Your task to perform on an android device: Clear the shopping cart on walmart.com. Search for dell alienware on walmart.com, select the first entry, and add it to the cart. Image 0: 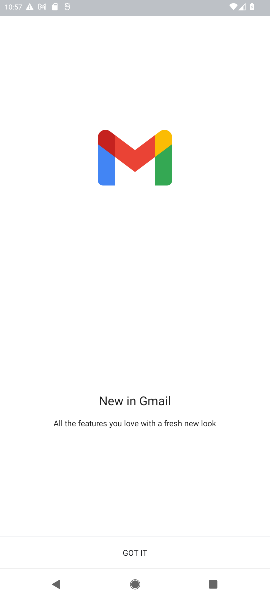
Step 0: press home button
Your task to perform on an android device: Clear the shopping cart on walmart.com. Search for dell alienware on walmart.com, select the first entry, and add it to the cart. Image 1: 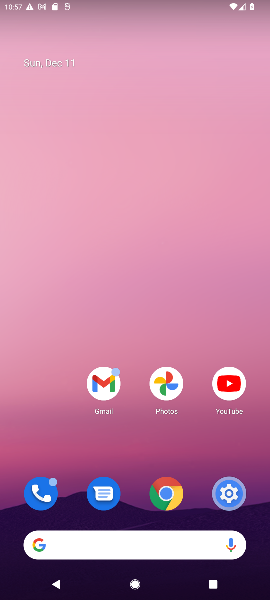
Step 1: click (147, 544)
Your task to perform on an android device: Clear the shopping cart on walmart.com. Search for dell alienware on walmart.com, select the first entry, and add it to the cart. Image 2: 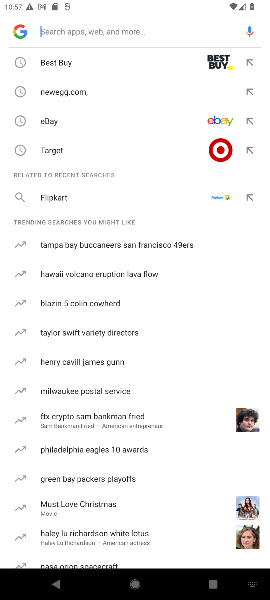
Step 2: type "walmart"
Your task to perform on an android device: Clear the shopping cart on walmart.com. Search for dell alienware on walmart.com, select the first entry, and add it to the cart. Image 3: 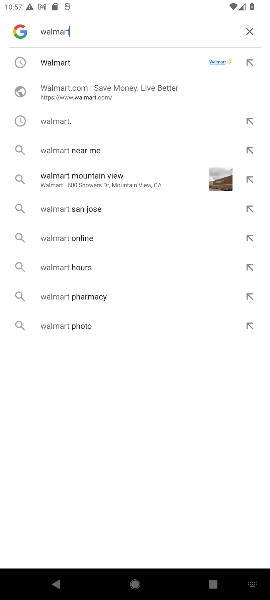
Step 3: click (104, 68)
Your task to perform on an android device: Clear the shopping cart on walmart.com. Search for dell alienware on walmart.com, select the first entry, and add it to the cart. Image 4: 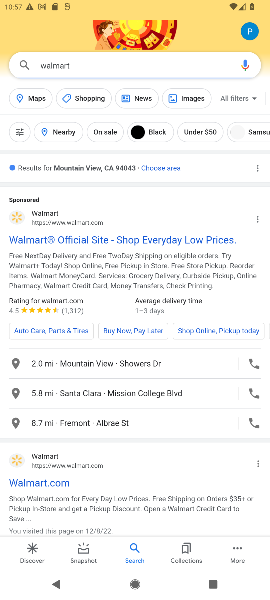
Step 4: click (49, 236)
Your task to perform on an android device: Clear the shopping cart on walmart.com. Search for dell alienware on walmart.com, select the first entry, and add it to the cart. Image 5: 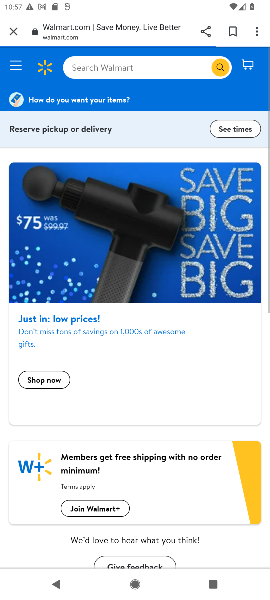
Step 5: click (159, 71)
Your task to perform on an android device: Clear the shopping cart on walmart.com. Search for dell alienware on walmart.com, select the first entry, and add it to the cart. Image 6: 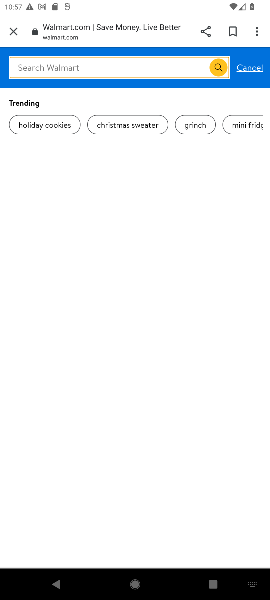
Step 6: type "dell alienware"
Your task to perform on an android device: Clear the shopping cart on walmart.com. Search for dell alienware on walmart.com, select the first entry, and add it to the cart. Image 7: 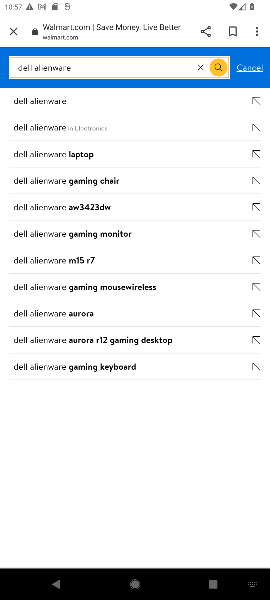
Step 7: click (140, 100)
Your task to perform on an android device: Clear the shopping cart on walmart.com. Search for dell alienware on walmart.com, select the first entry, and add it to the cart. Image 8: 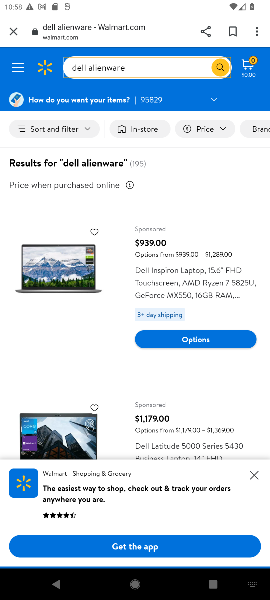
Step 8: click (190, 344)
Your task to perform on an android device: Clear the shopping cart on walmart.com. Search for dell alienware on walmart.com, select the first entry, and add it to the cart. Image 9: 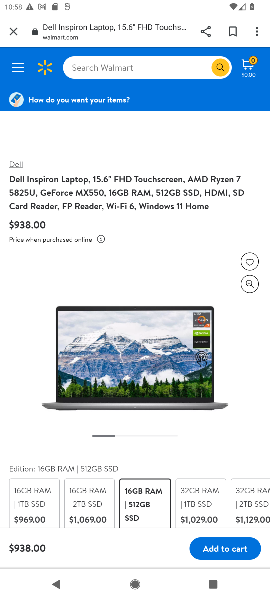
Step 9: click (239, 542)
Your task to perform on an android device: Clear the shopping cart on walmart.com. Search for dell alienware on walmart.com, select the first entry, and add it to the cart. Image 10: 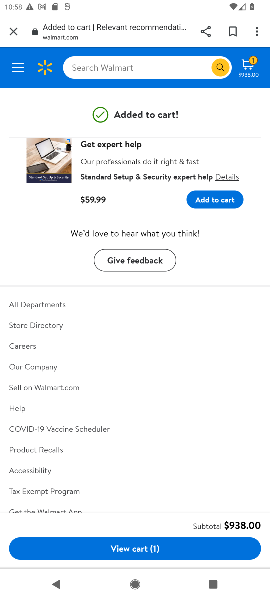
Step 10: task complete